Your task to perform on an android device: open app "Yahoo Mail" Image 0: 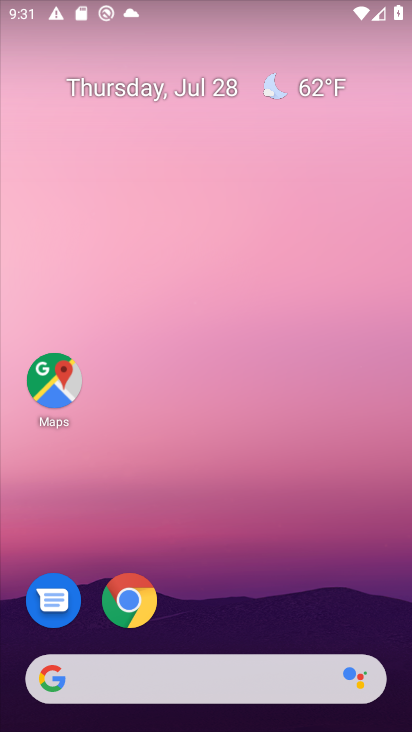
Step 0: drag from (236, 624) to (214, 3)
Your task to perform on an android device: open app "Yahoo Mail" Image 1: 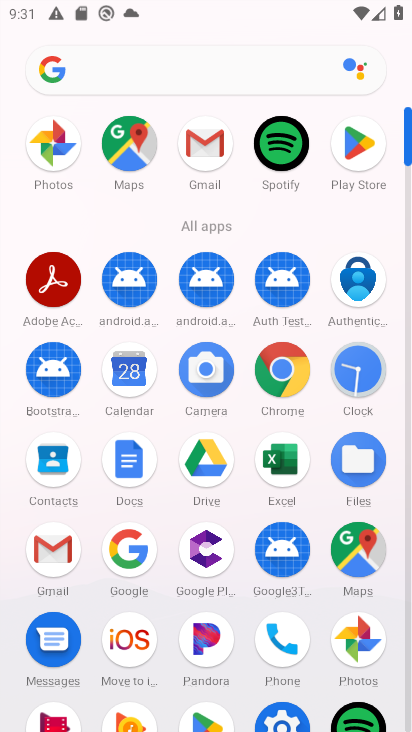
Step 1: click (366, 148)
Your task to perform on an android device: open app "Yahoo Mail" Image 2: 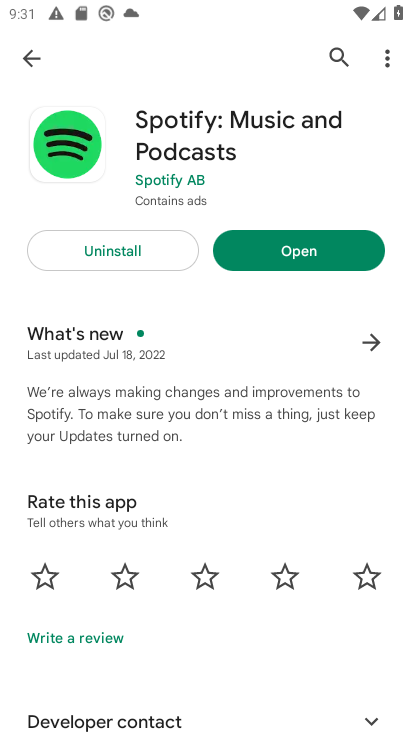
Step 2: click (335, 59)
Your task to perform on an android device: open app "Yahoo Mail" Image 3: 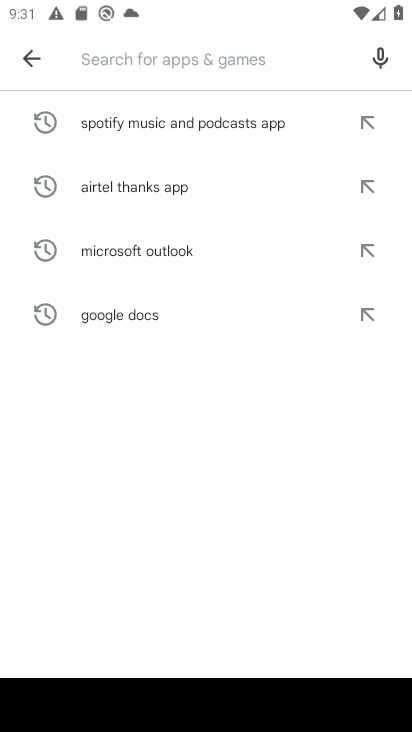
Step 3: type "Yahoo Mail"
Your task to perform on an android device: open app "Yahoo Mail" Image 4: 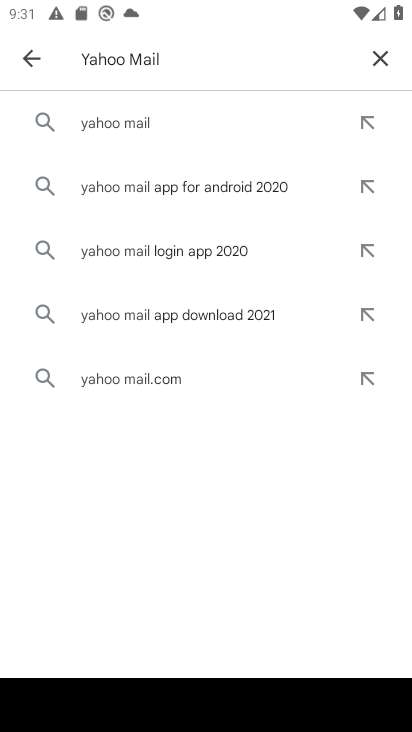
Step 4: click (109, 128)
Your task to perform on an android device: open app "Yahoo Mail" Image 5: 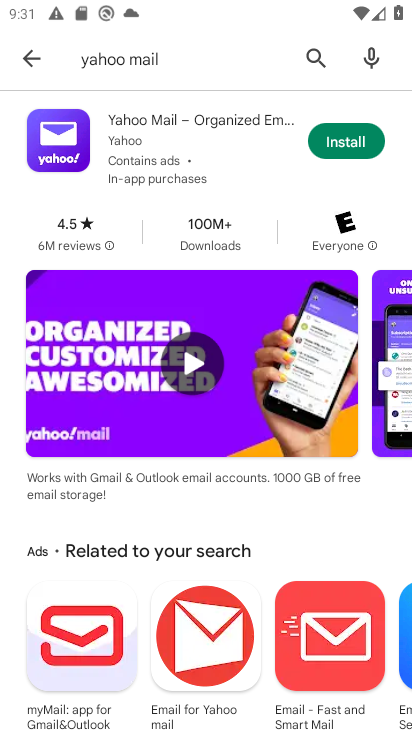
Step 5: task complete